Your task to perform on an android device: What is the news today? Image 0: 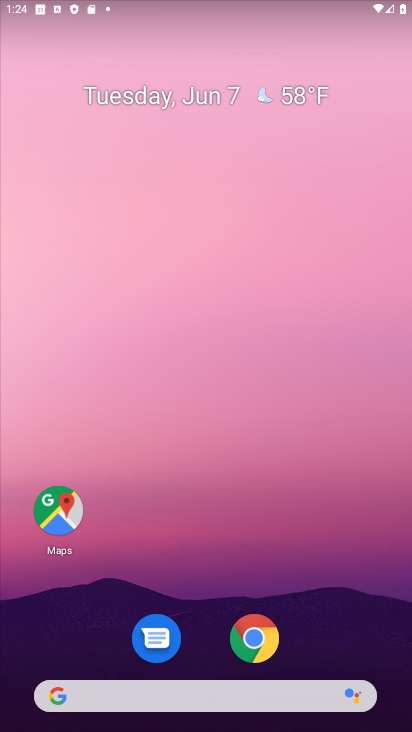
Step 0: click (251, 648)
Your task to perform on an android device: What is the news today? Image 1: 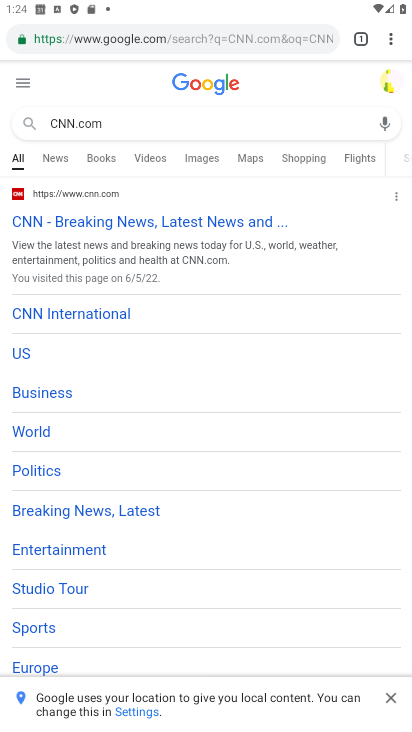
Step 1: click (111, 43)
Your task to perform on an android device: What is the news today? Image 2: 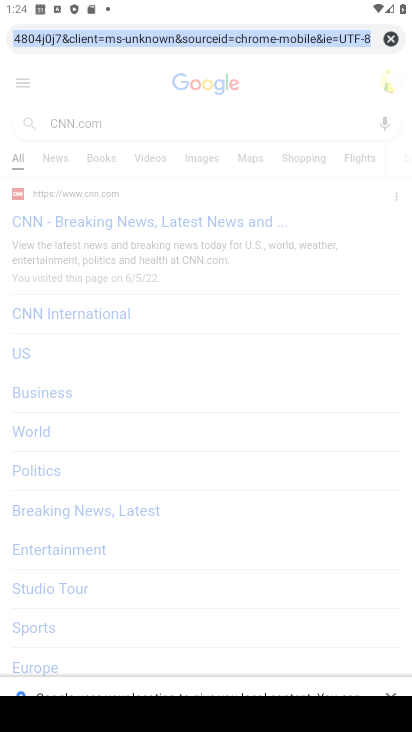
Step 2: type "What is the news today?"
Your task to perform on an android device: What is the news today? Image 3: 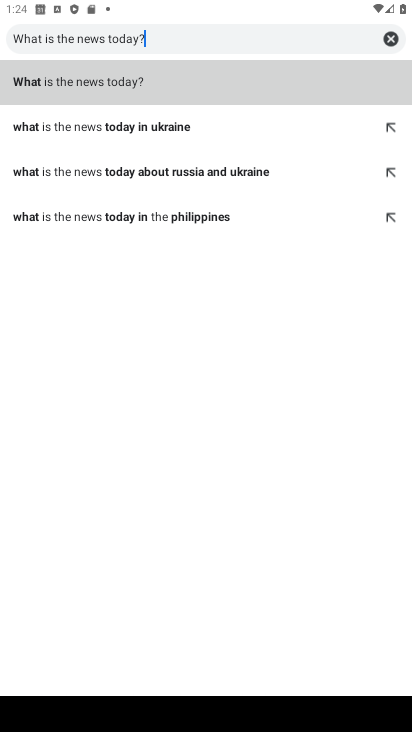
Step 3: click (129, 96)
Your task to perform on an android device: What is the news today? Image 4: 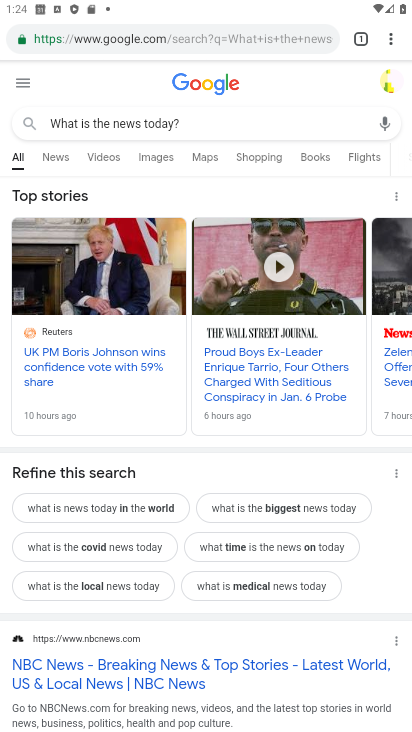
Step 4: task complete